Your task to perform on an android device: Go to Google Image 0: 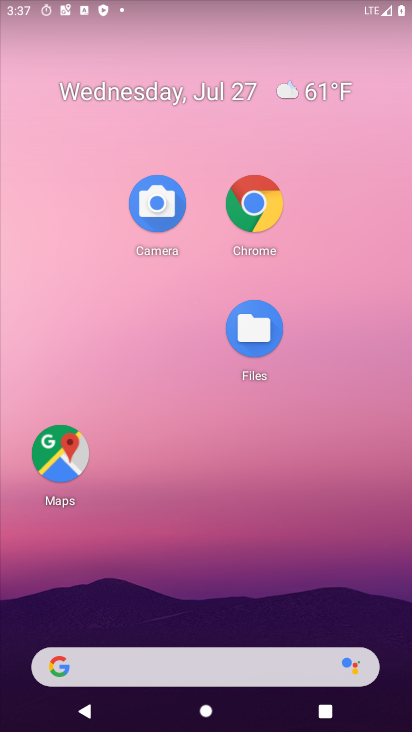
Step 0: drag from (210, 608) to (210, 255)
Your task to perform on an android device: Go to Google Image 1: 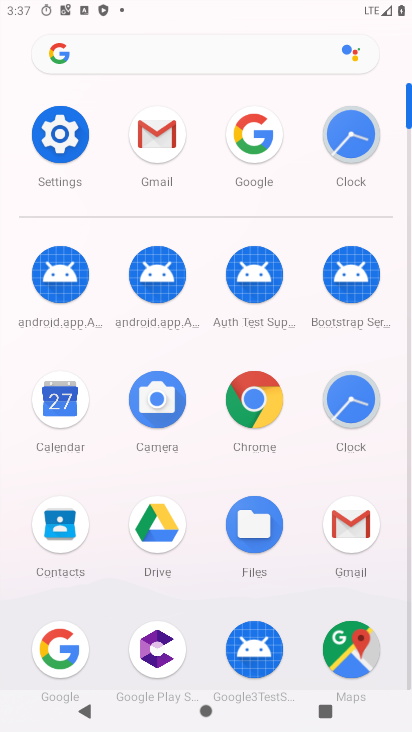
Step 1: click (232, 142)
Your task to perform on an android device: Go to Google Image 2: 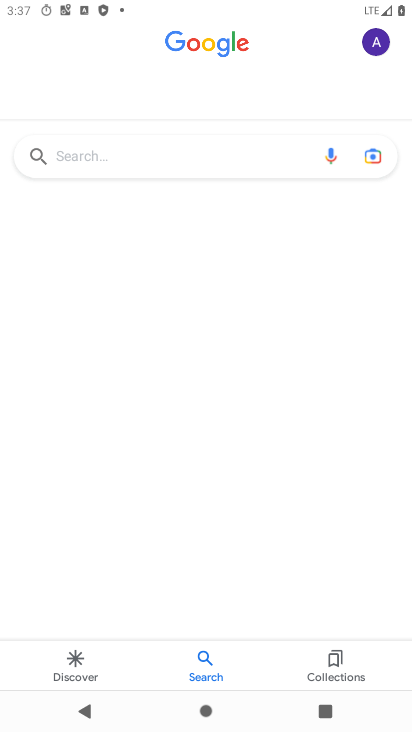
Step 2: task complete